Your task to perform on an android device: turn off wifi Image 0: 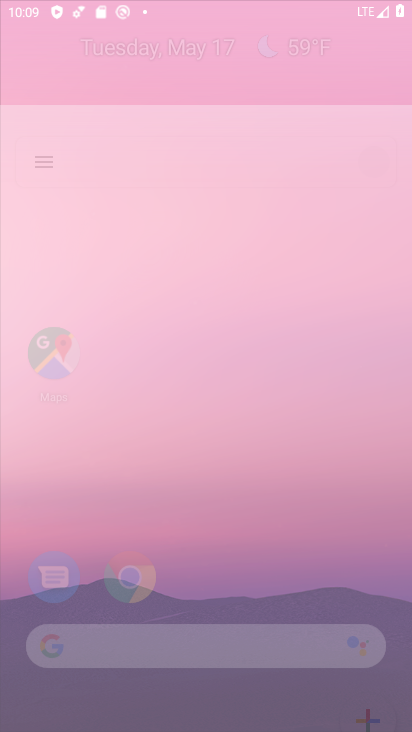
Step 0: click (284, 206)
Your task to perform on an android device: turn off wifi Image 1: 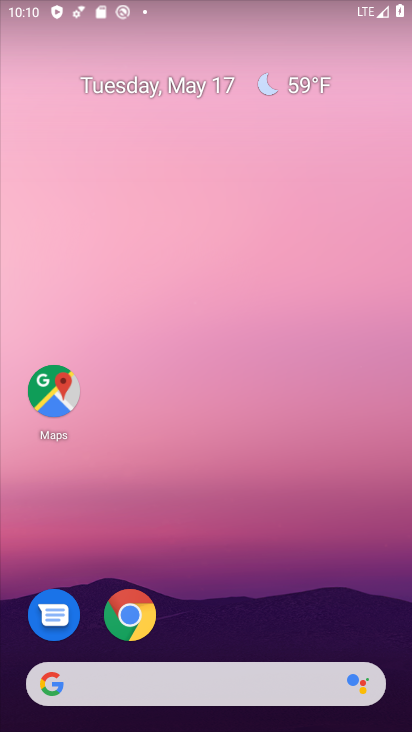
Step 1: press home button
Your task to perform on an android device: turn off wifi Image 2: 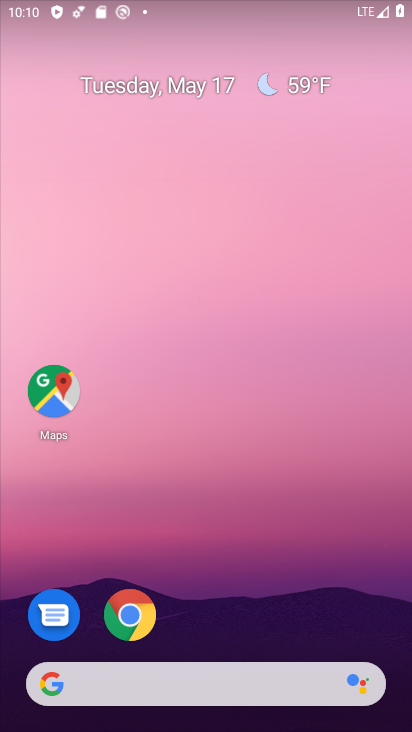
Step 2: drag from (239, 685) to (318, 164)
Your task to perform on an android device: turn off wifi Image 3: 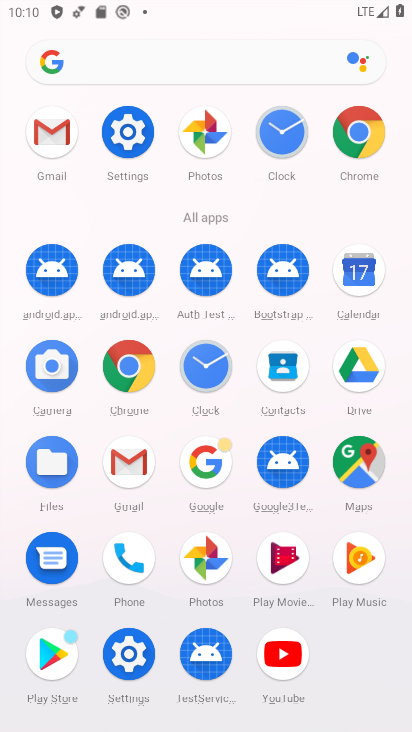
Step 3: click (142, 130)
Your task to perform on an android device: turn off wifi Image 4: 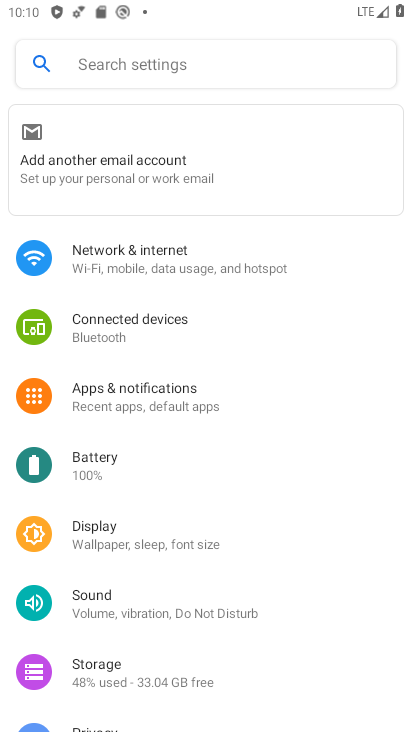
Step 4: click (197, 255)
Your task to perform on an android device: turn off wifi Image 5: 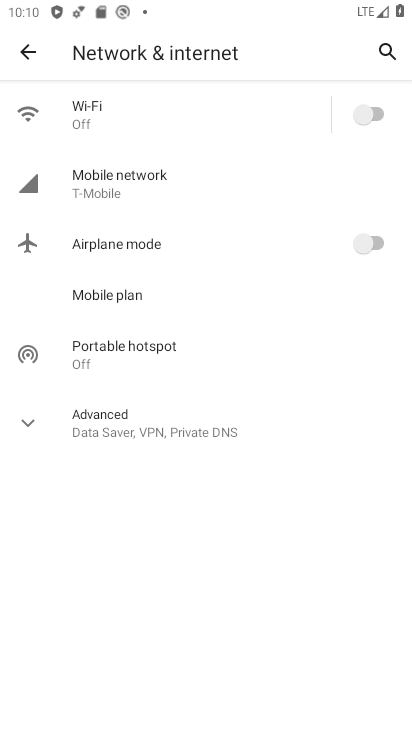
Step 5: task complete